Your task to perform on an android device: search for starred emails in the gmail app Image 0: 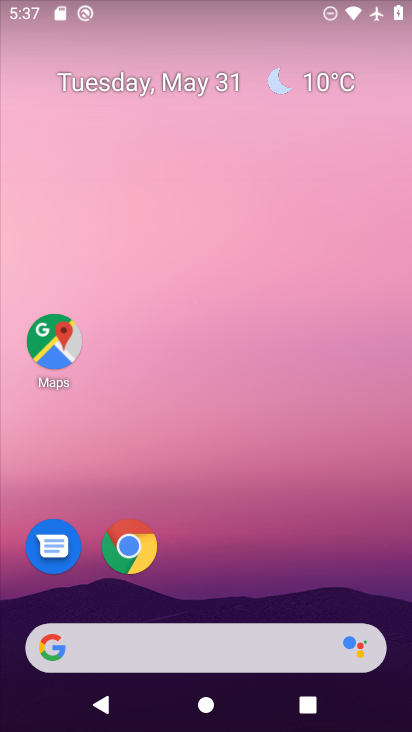
Step 0: drag from (218, 377) to (145, 53)
Your task to perform on an android device: search for starred emails in the gmail app Image 1: 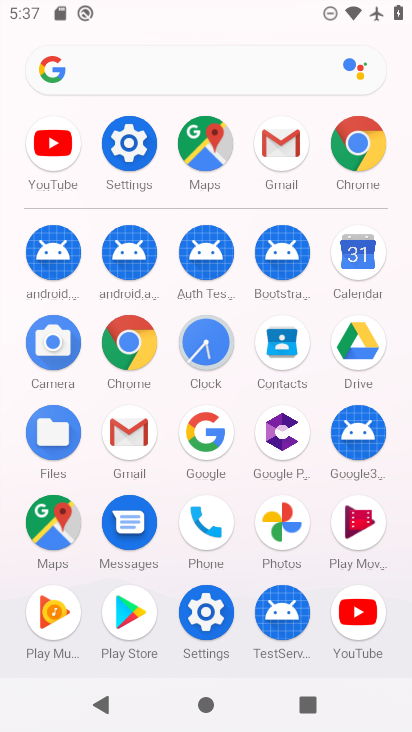
Step 1: click (270, 145)
Your task to perform on an android device: search for starred emails in the gmail app Image 2: 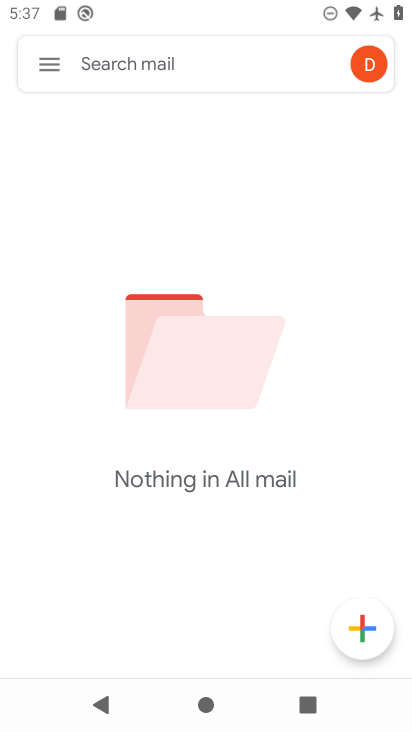
Step 2: click (121, 69)
Your task to perform on an android device: search for starred emails in the gmail app Image 3: 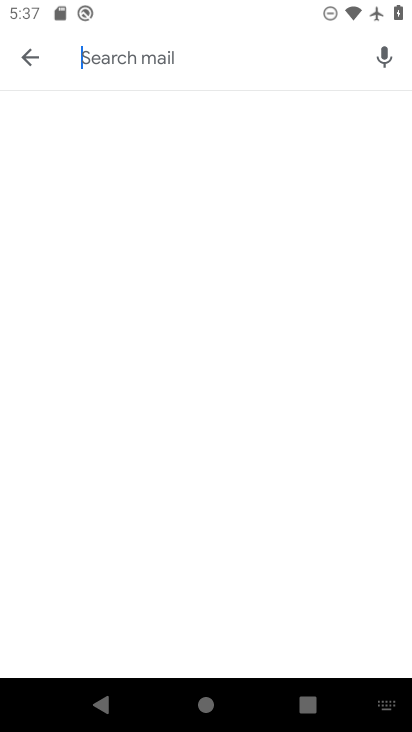
Step 3: type "starred"
Your task to perform on an android device: search for starred emails in the gmail app Image 4: 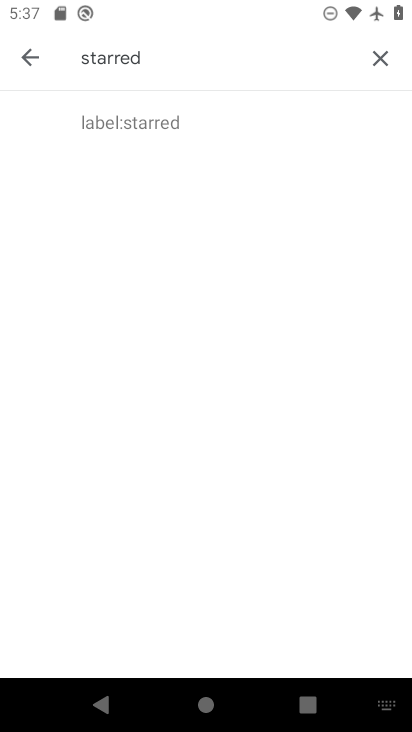
Step 4: click (171, 131)
Your task to perform on an android device: search for starred emails in the gmail app Image 5: 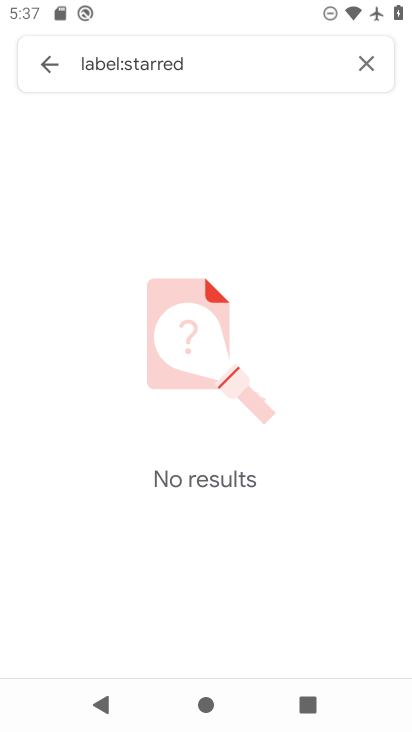
Step 5: task complete